Your task to perform on an android device: What's on the menu at Denny's? Image 0: 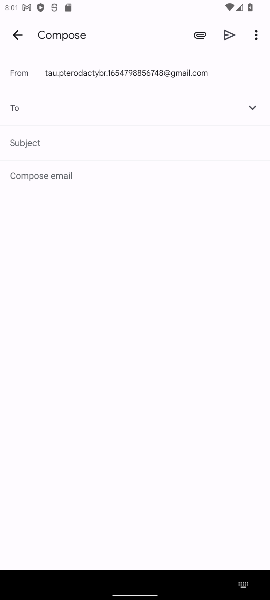
Step 0: press home button
Your task to perform on an android device: What's on the menu at Denny's? Image 1: 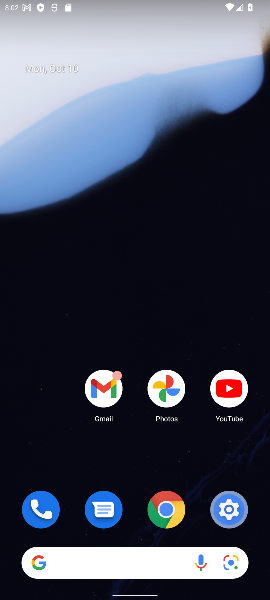
Step 1: click (176, 515)
Your task to perform on an android device: What's on the menu at Denny's? Image 2: 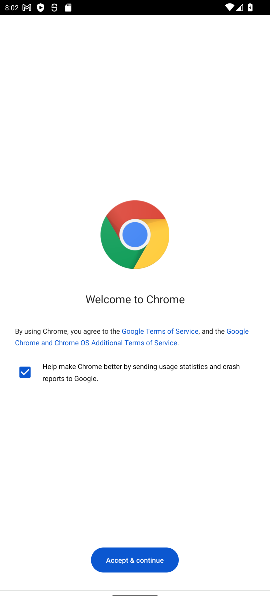
Step 2: click (122, 558)
Your task to perform on an android device: What's on the menu at Denny's? Image 3: 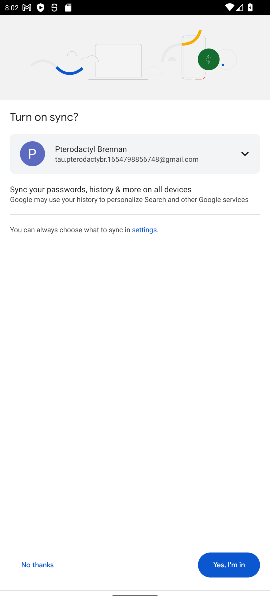
Step 3: click (224, 564)
Your task to perform on an android device: What's on the menu at Denny's? Image 4: 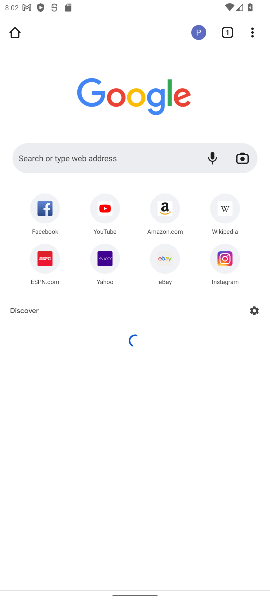
Step 4: click (132, 156)
Your task to perform on an android device: What's on the menu at Denny's? Image 5: 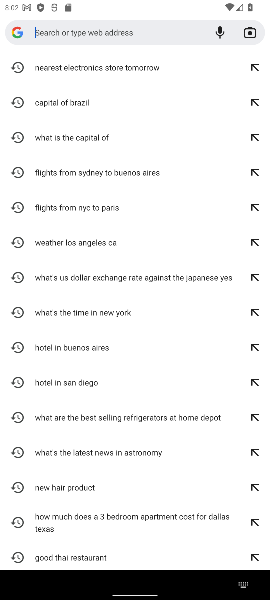
Step 5: type "denny's menu"
Your task to perform on an android device: What's on the menu at Denny's? Image 6: 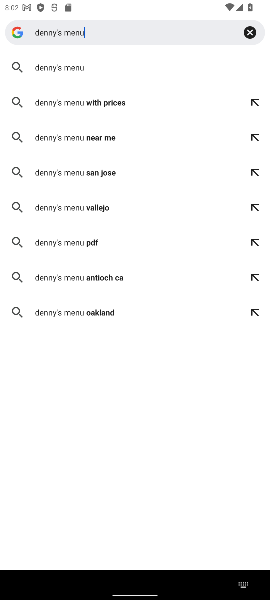
Step 6: click (68, 67)
Your task to perform on an android device: What's on the menu at Denny's? Image 7: 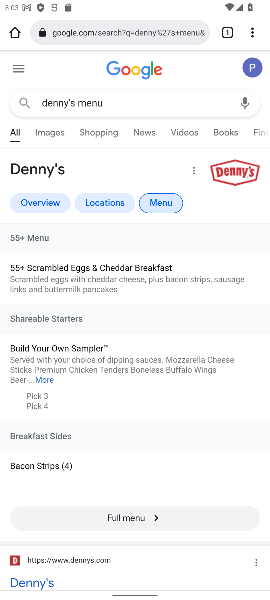
Step 7: task complete